Your task to perform on an android device: turn off notifications in google photos Image 0: 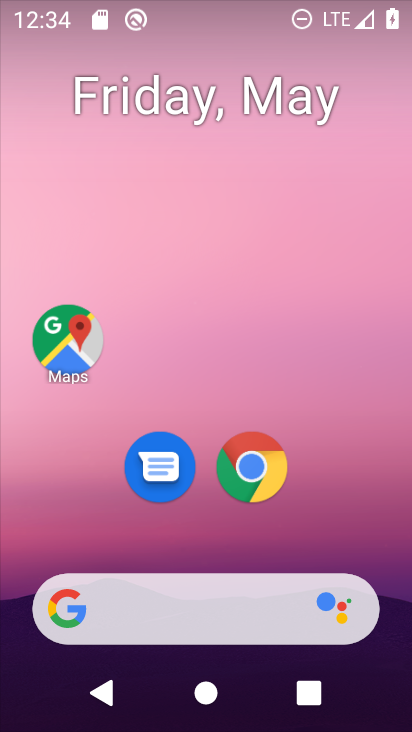
Step 0: drag from (285, 555) to (311, 11)
Your task to perform on an android device: turn off notifications in google photos Image 1: 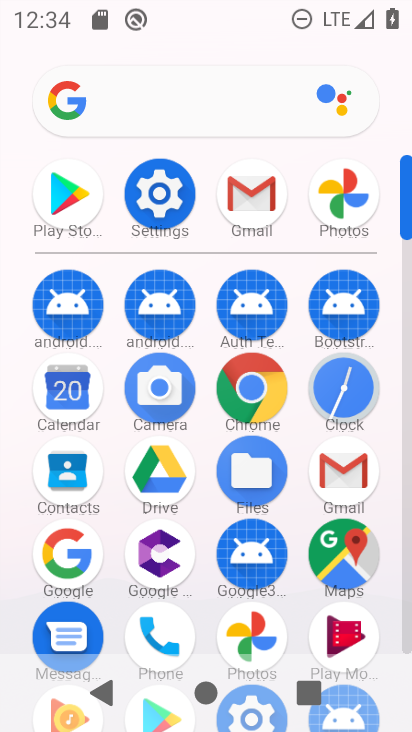
Step 1: click (275, 621)
Your task to perform on an android device: turn off notifications in google photos Image 2: 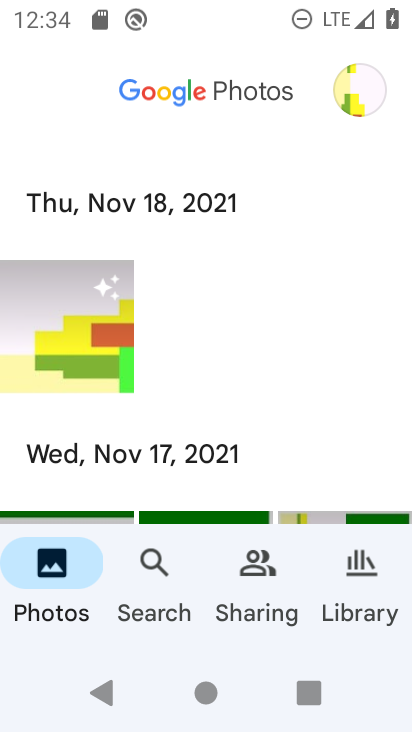
Step 2: click (349, 88)
Your task to perform on an android device: turn off notifications in google photos Image 3: 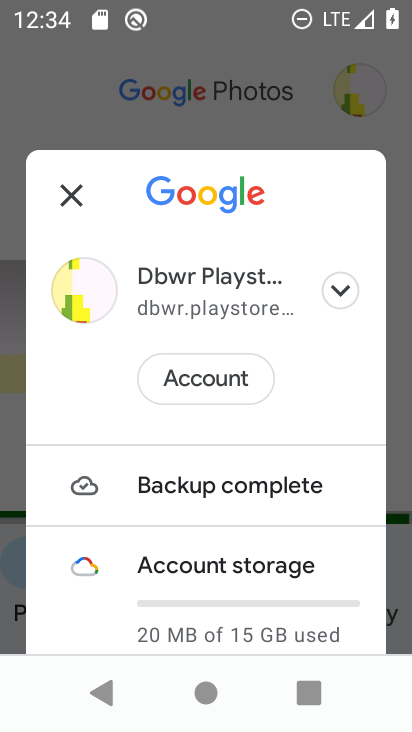
Step 3: drag from (248, 575) to (252, 103)
Your task to perform on an android device: turn off notifications in google photos Image 4: 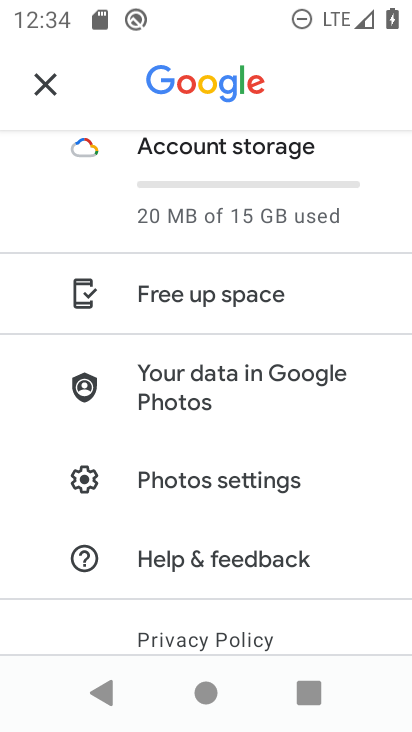
Step 4: click (237, 477)
Your task to perform on an android device: turn off notifications in google photos Image 5: 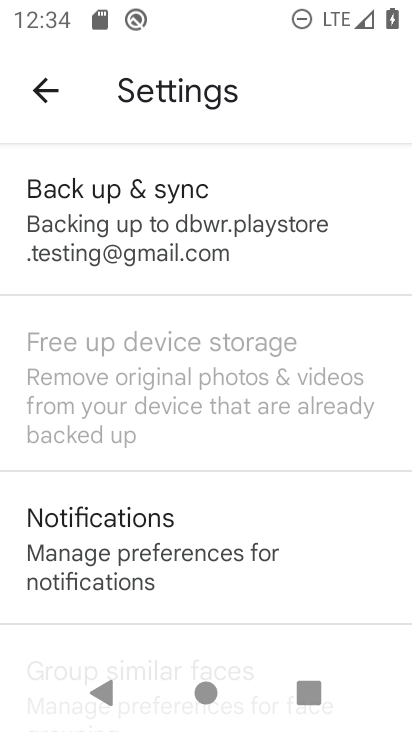
Step 5: click (160, 566)
Your task to perform on an android device: turn off notifications in google photos Image 6: 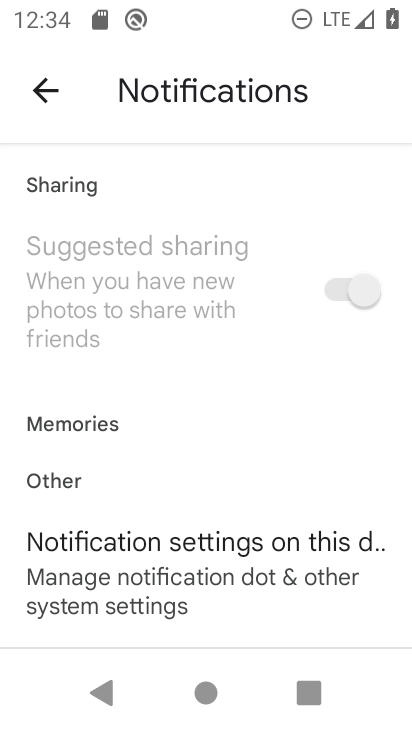
Step 6: click (216, 591)
Your task to perform on an android device: turn off notifications in google photos Image 7: 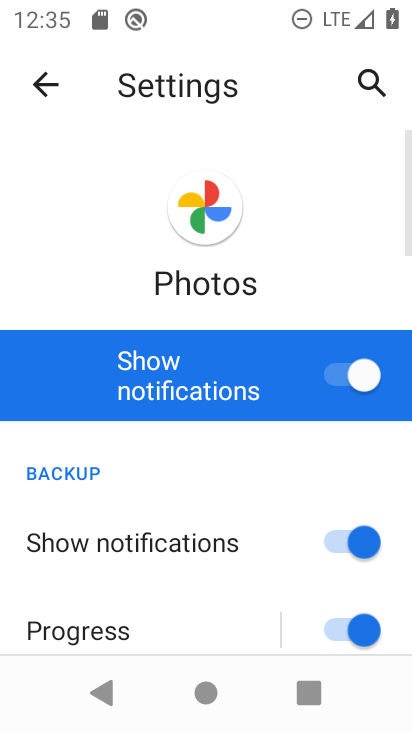
Step 7: click (347, 380)
Your task to perform on an android device: turn off notifications in google photos Image 8: 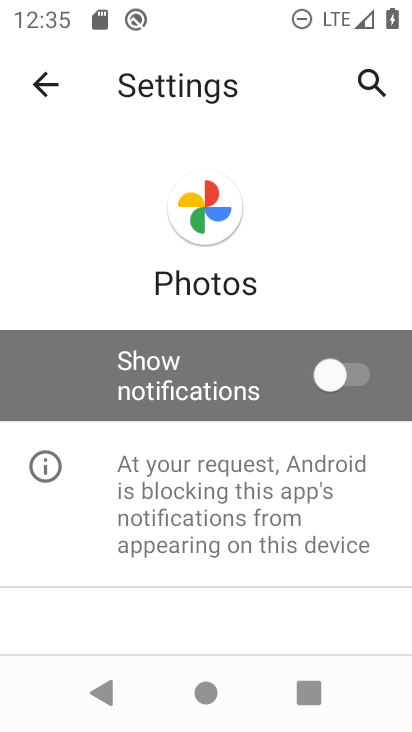
Step 8: task complete